Your task to perform on an android device: turn on wifi Image 0: 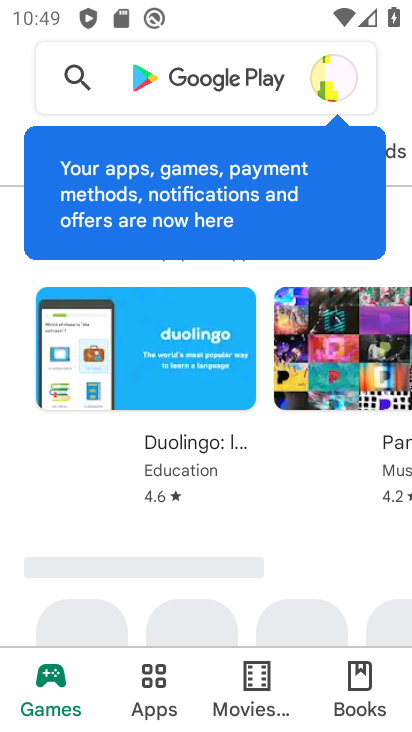
Step 0: press home button
Your task to perform on an android device: turn on wifi Image 1: 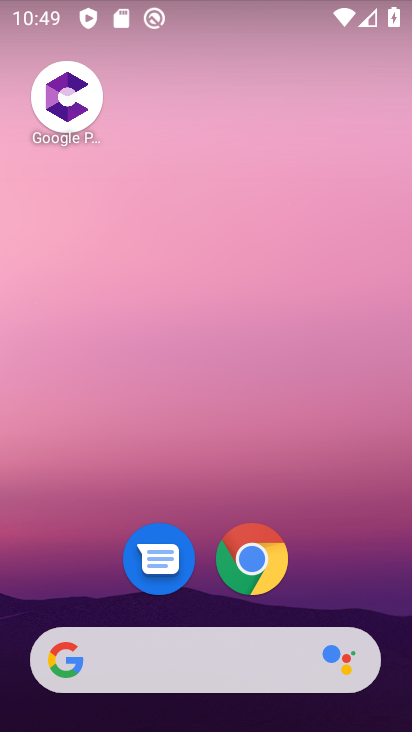
Step 1: task complete